Your task to perform on an android device: Open Wikipedia Image 0: 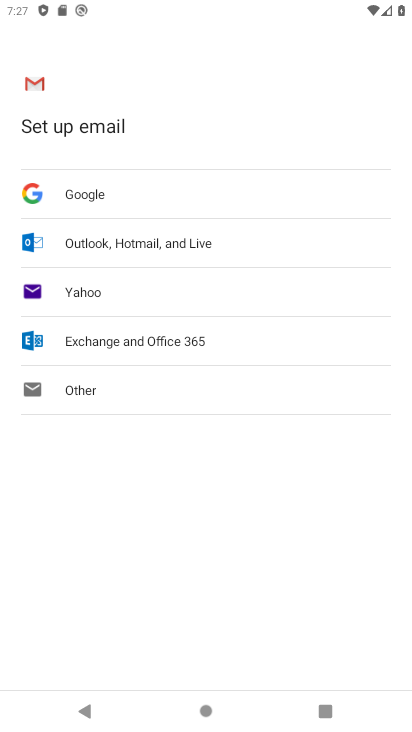
Step 0: press home button
Your task to perform on an android device: Open Wikipedia Image 1: 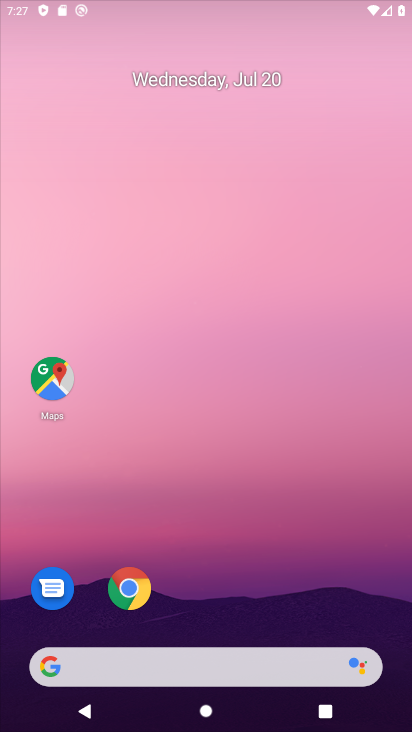
Step 1: click (266, 669)
Your task to perform on an android device: Open Wikipedia Image 2: 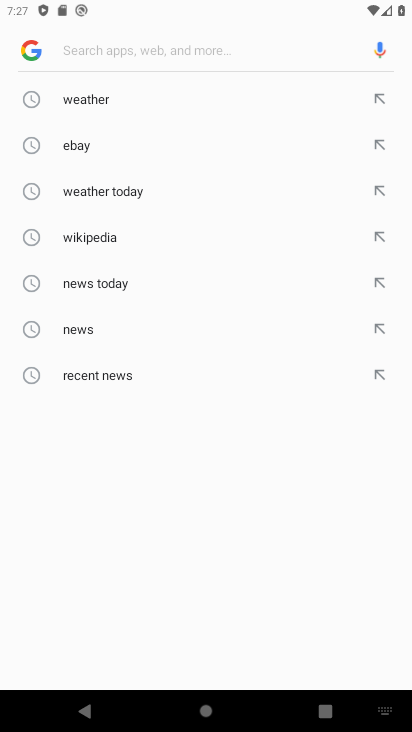
Step 2: click (118, 236)
Your task to perform on an android device: Open Wikipedia Image 3: 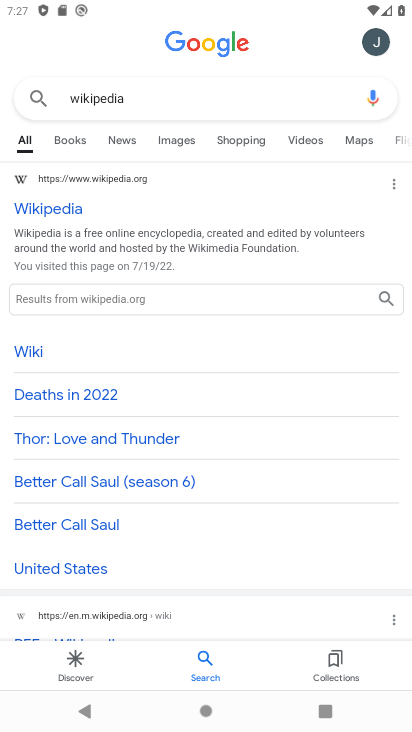
Step 3: click (63, 175)
Your task to perform on an android device: Open Wikipedia Image 4: 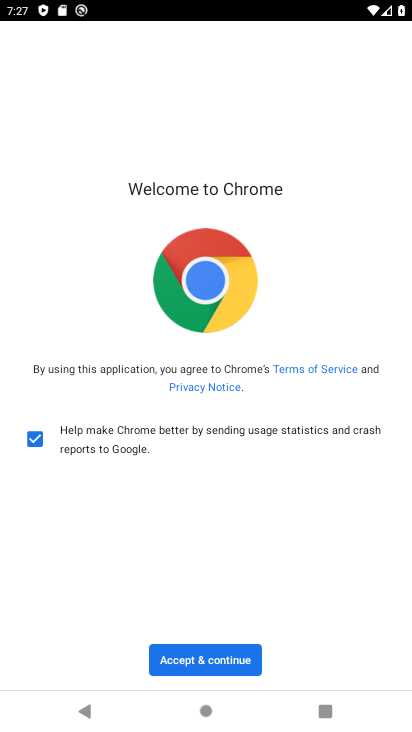
Step 4: click (246, 665)
Your task to perform on an android device: Open Wikipedia Image 5: 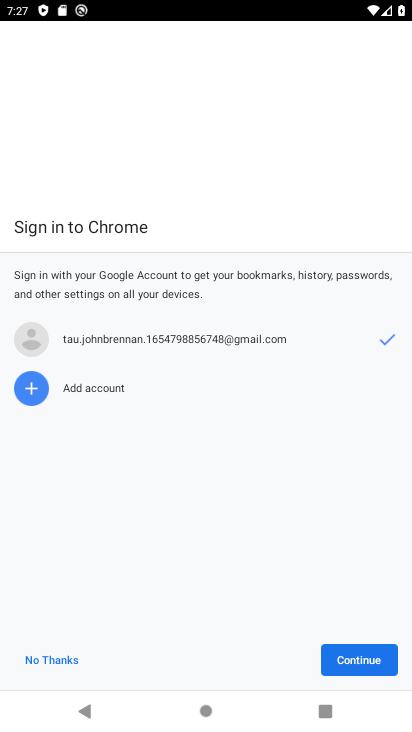
Step 5: click (355, 654)
Your task to perform on an android device: Open Wikipedia Image 6: 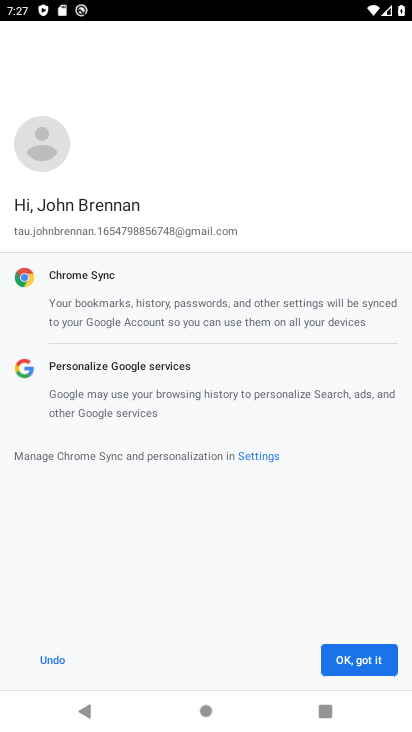
Step 6: click (355, 654)
Your task to perform on an android device: Open Wikipedia Image 7: 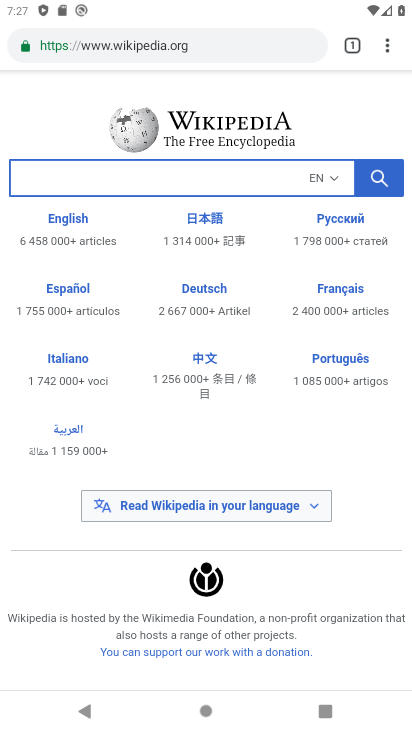
Step 7: task complete